Your task to perform on an android device: Add dell xps to the cart on bestbuy.com Image 0: 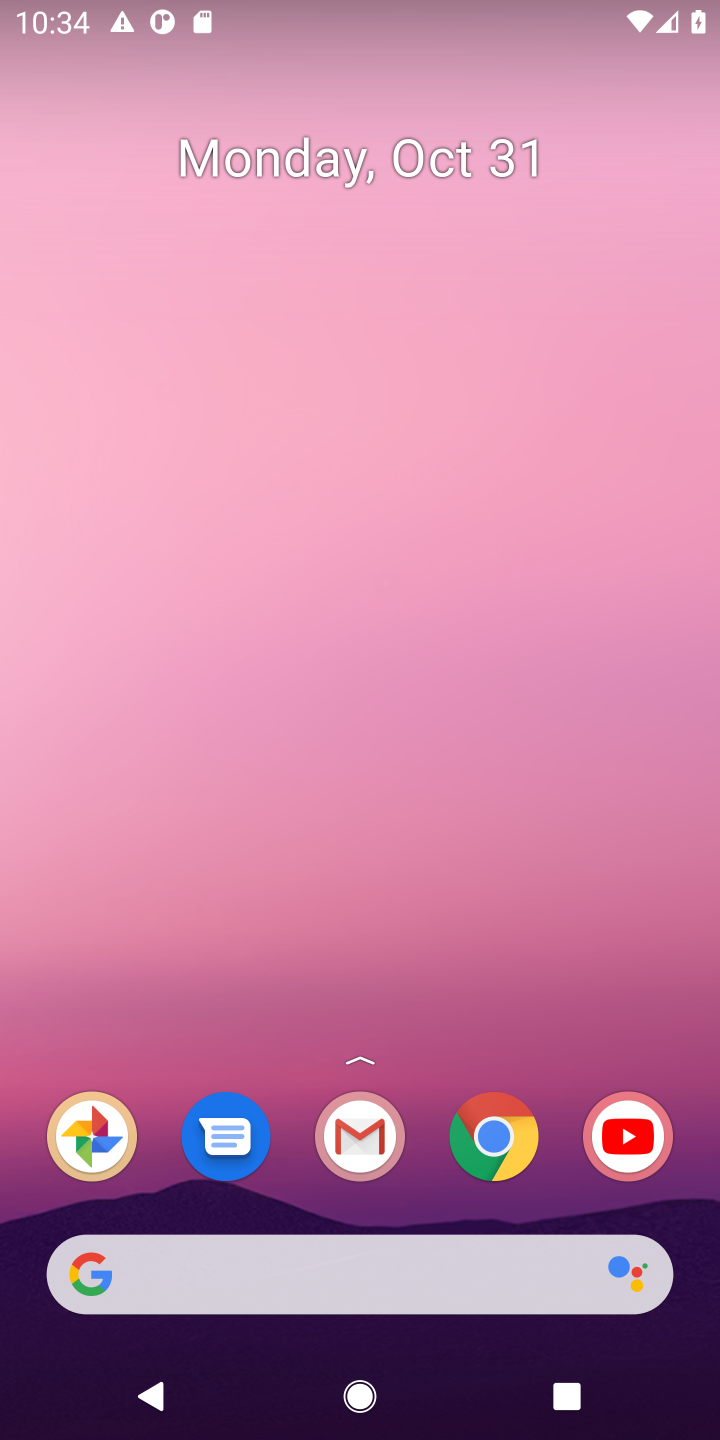
Step 0: press home button
Your task to perform on an android device: Add dell xps to the cart on bestbuy.com Image 1: 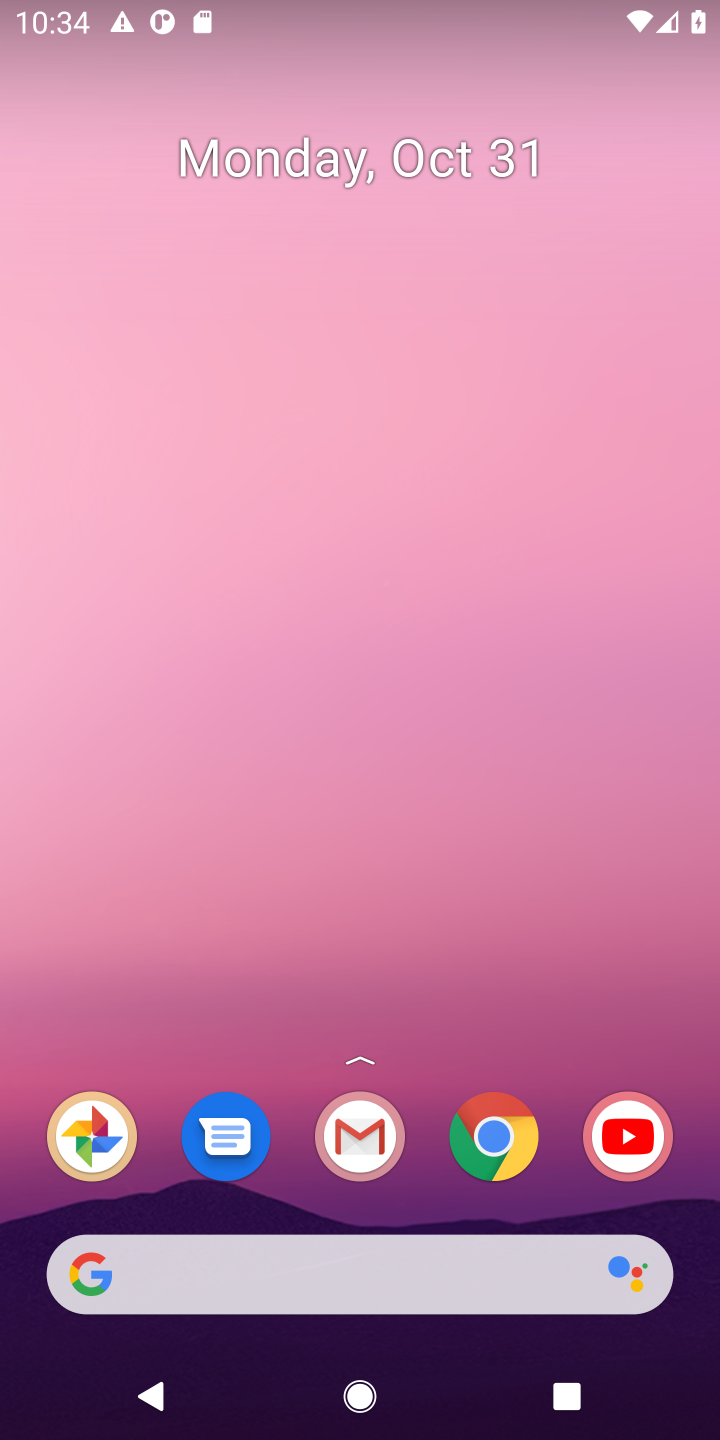
Step 1: click (126, 1282)
Your task to perform on an android device: Add dell xps to the cart on bestbuy.com Image 2: 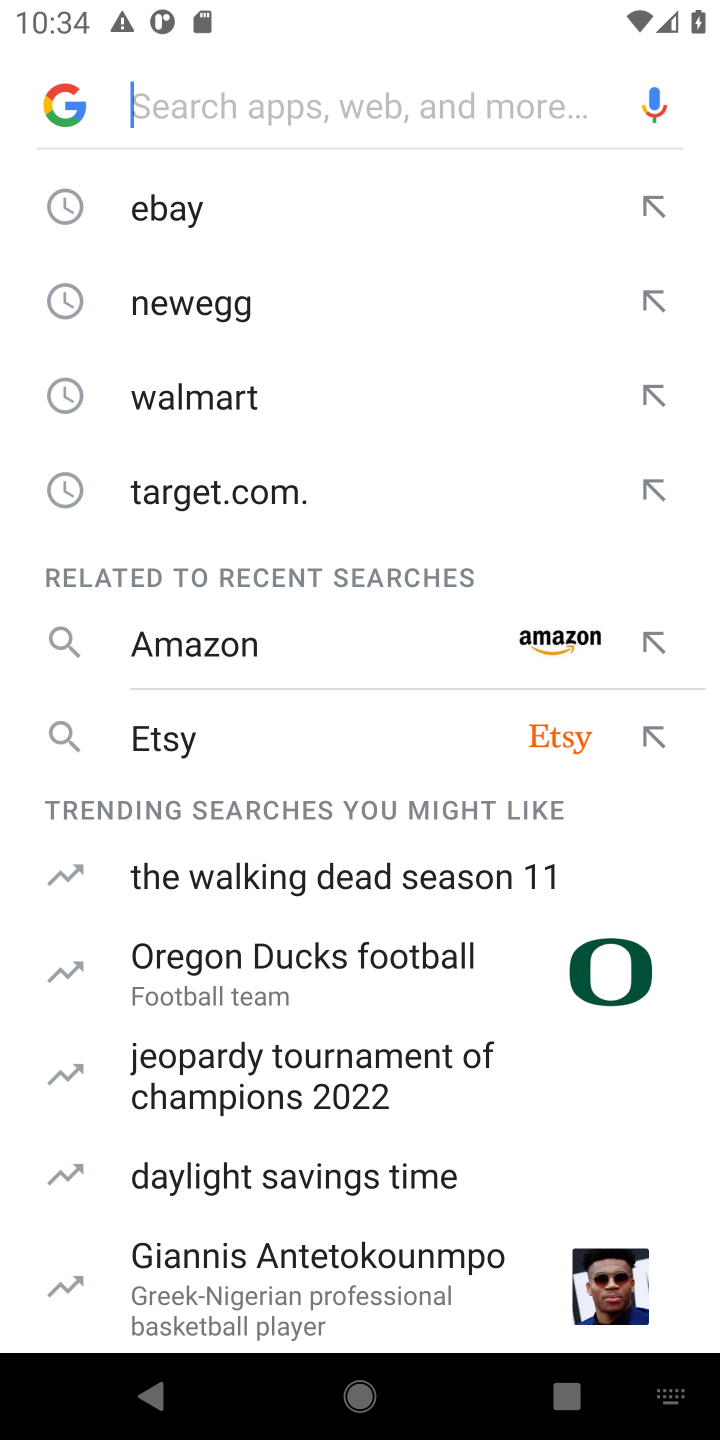
Step 2: type "bestbuy.com"
Your task to perform on an android device: Add dell xps to the cart on bestbuy.com Image 3: 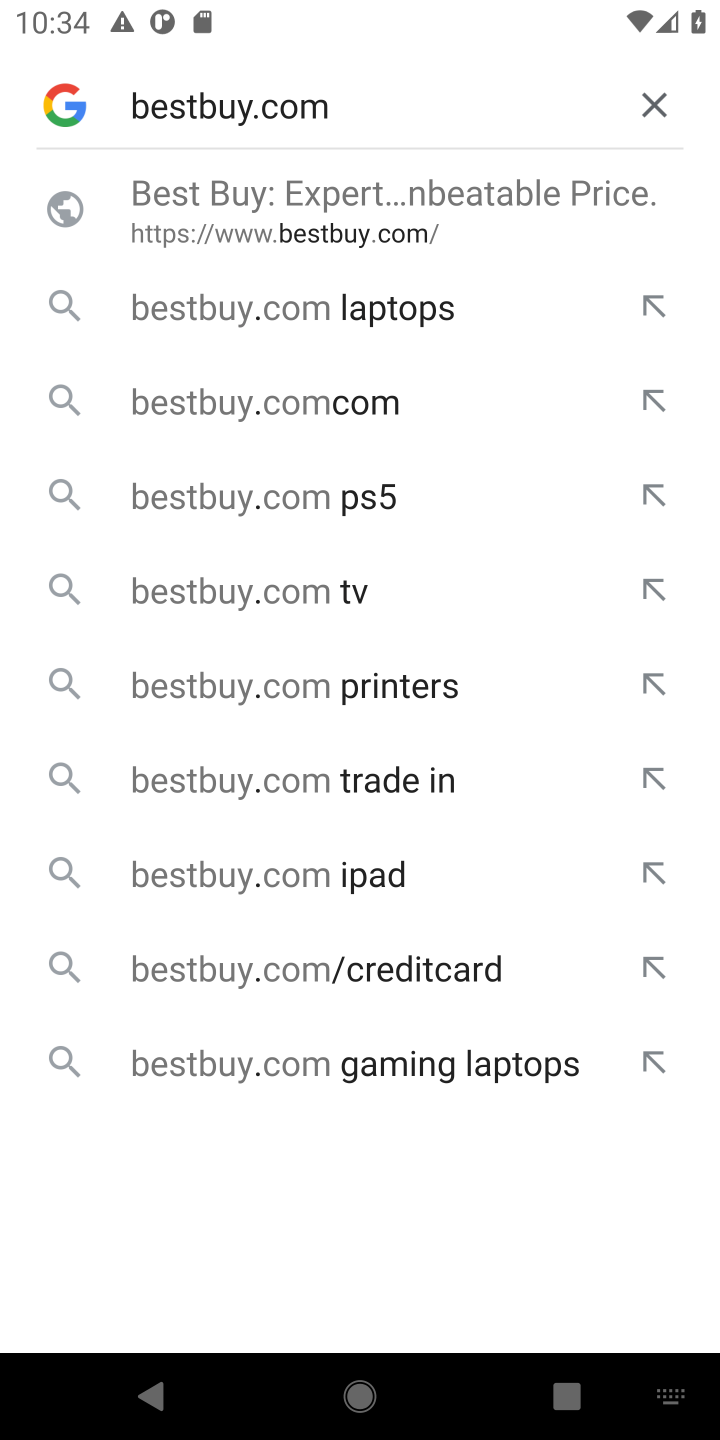
Step 3: press enter
Your task to perform on an android device: Add dell xps to the cart on bestbuy.com Image 4: 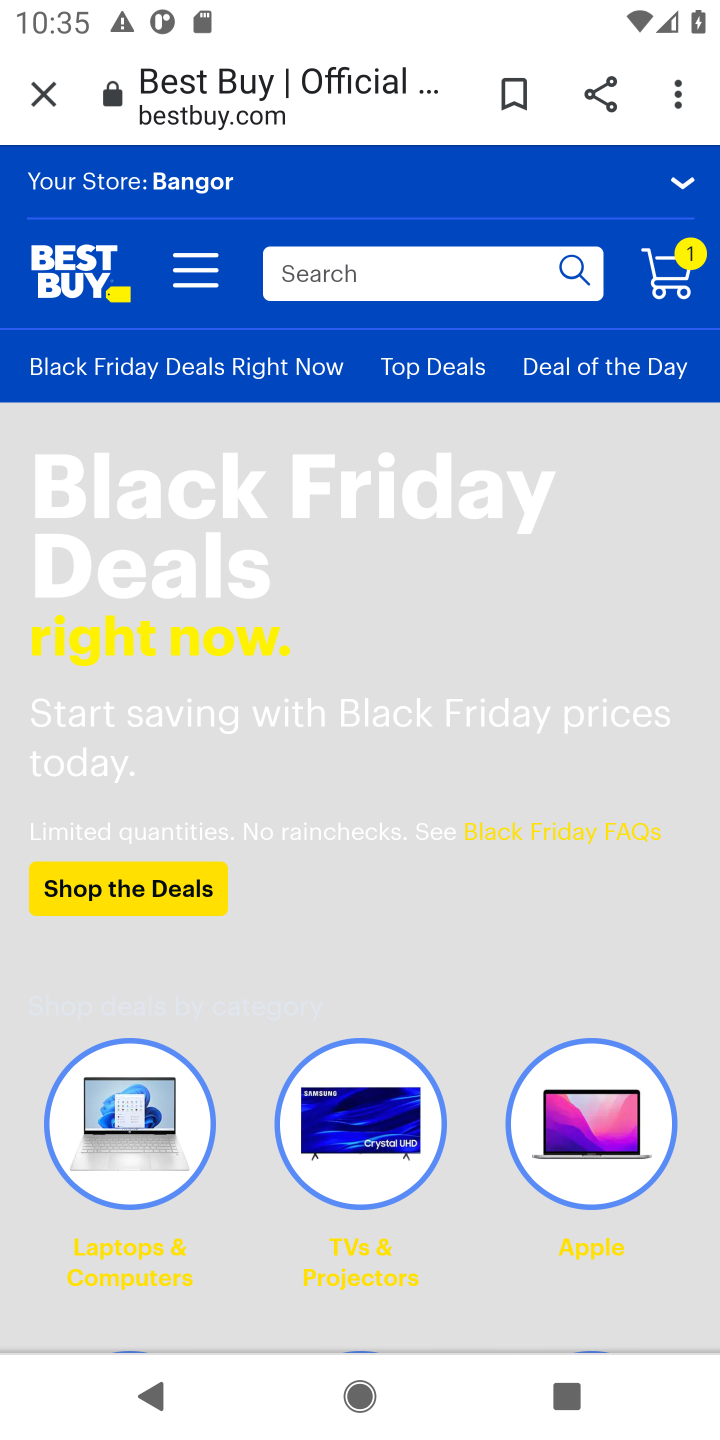
Step 4: click (304, 269)
Your task to perform on an android device: Add dell xps to the cart on bestbuy.com Image 5: 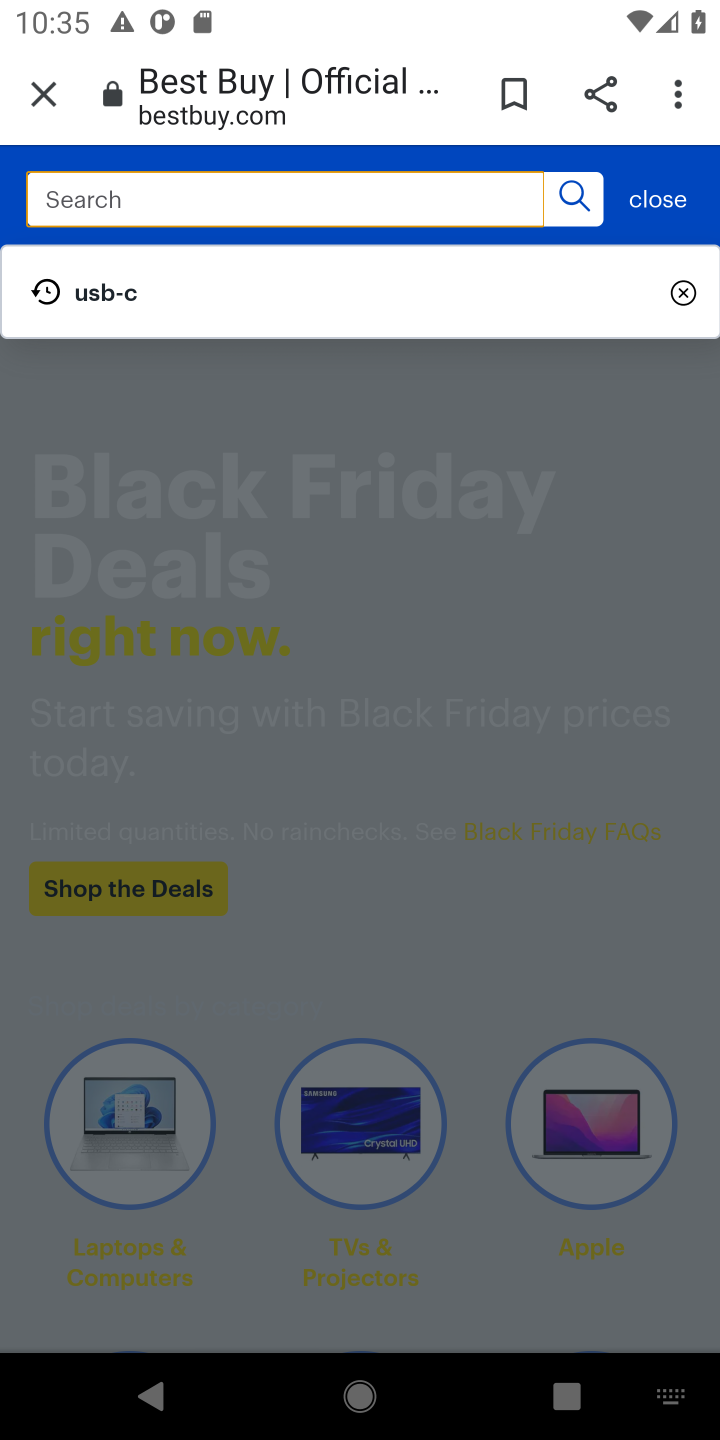
Step 5: type "dell xps"
Your task to perform on an android device: Add dell xps to the cart on bestbuy.com Image 6: 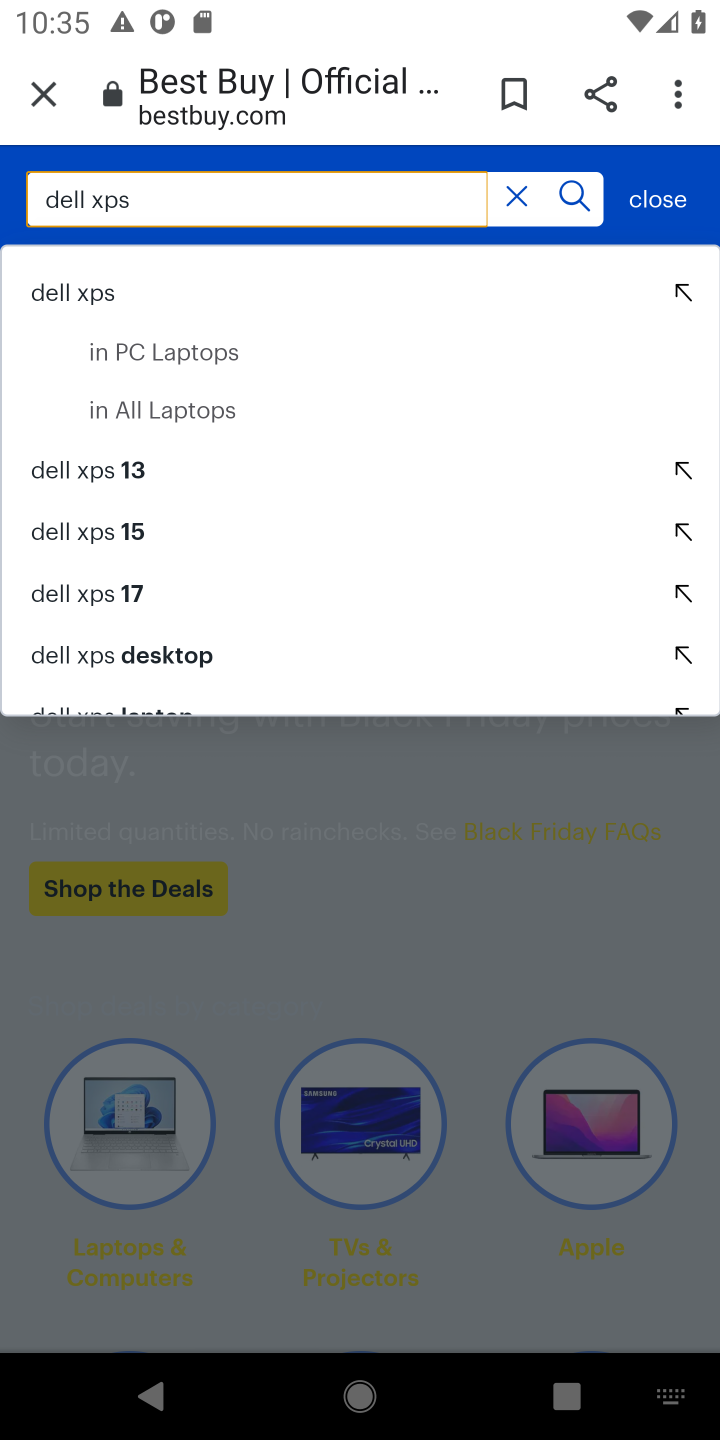
Step 6: press enter
Your task to perform on an android device: Add dell xps to the cart on bestbuy.com Image 7: 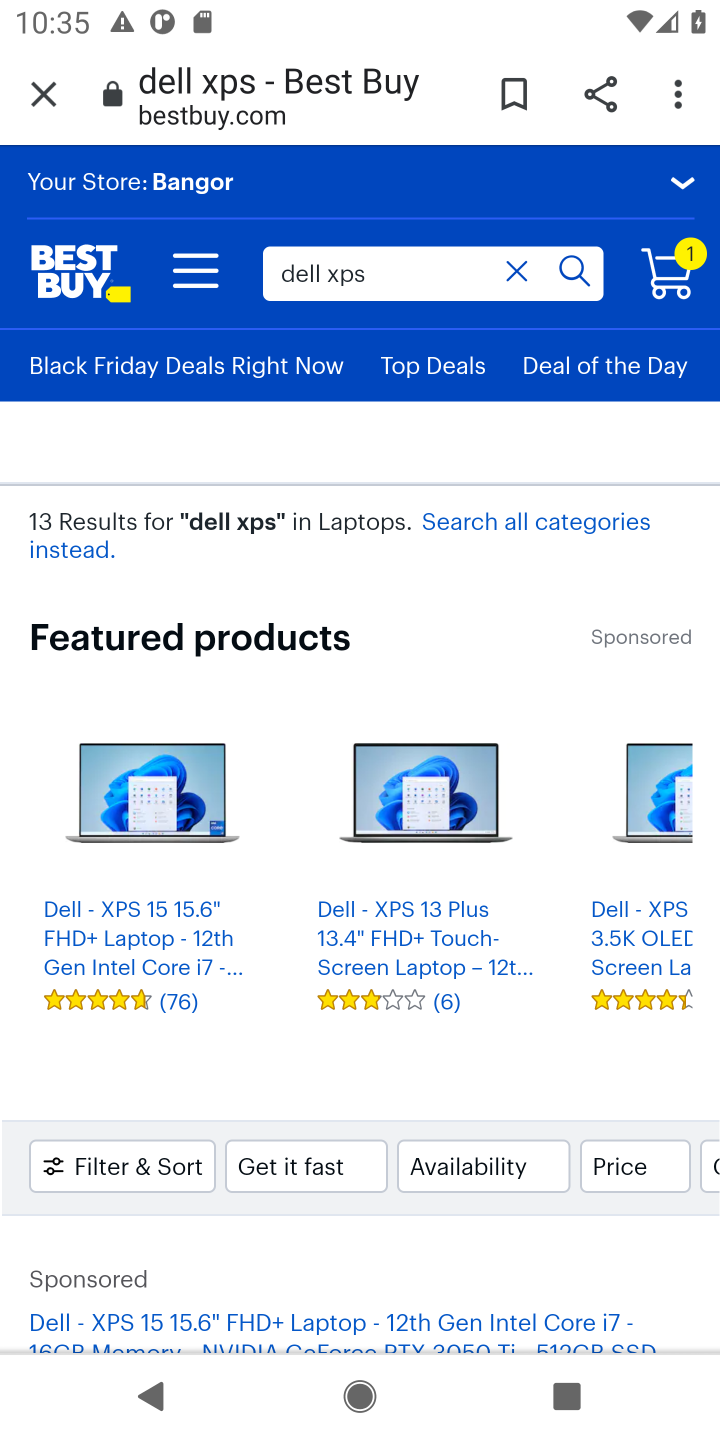
Step 7: drag from (412, 1127) to (509, 479)
Your task to perform on an android device: Add dell xps to the cart on bestbuy.com Image 8: 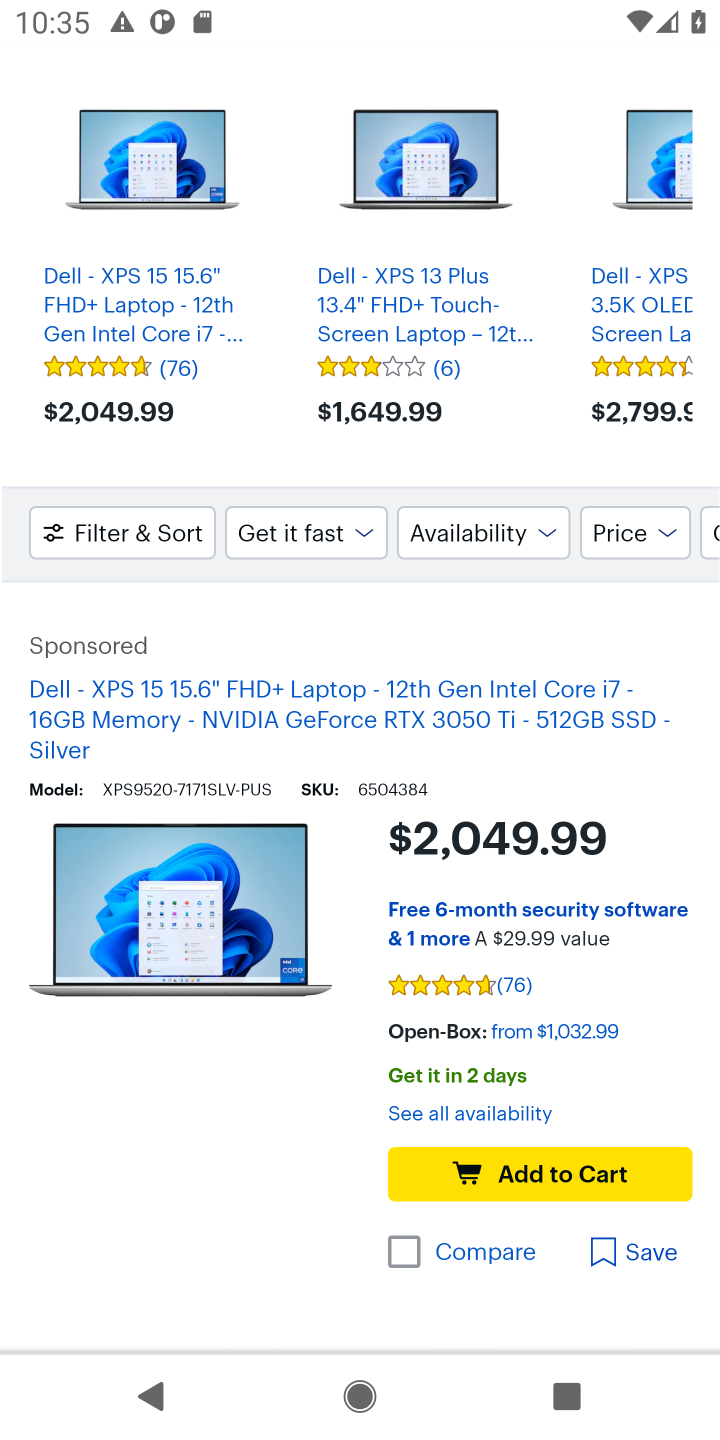
Step 8: drag from (318, 1028) to (369, 607)
Your task to perform on an android device: Add dell xps to the cart on bestbuy.com Image 9: 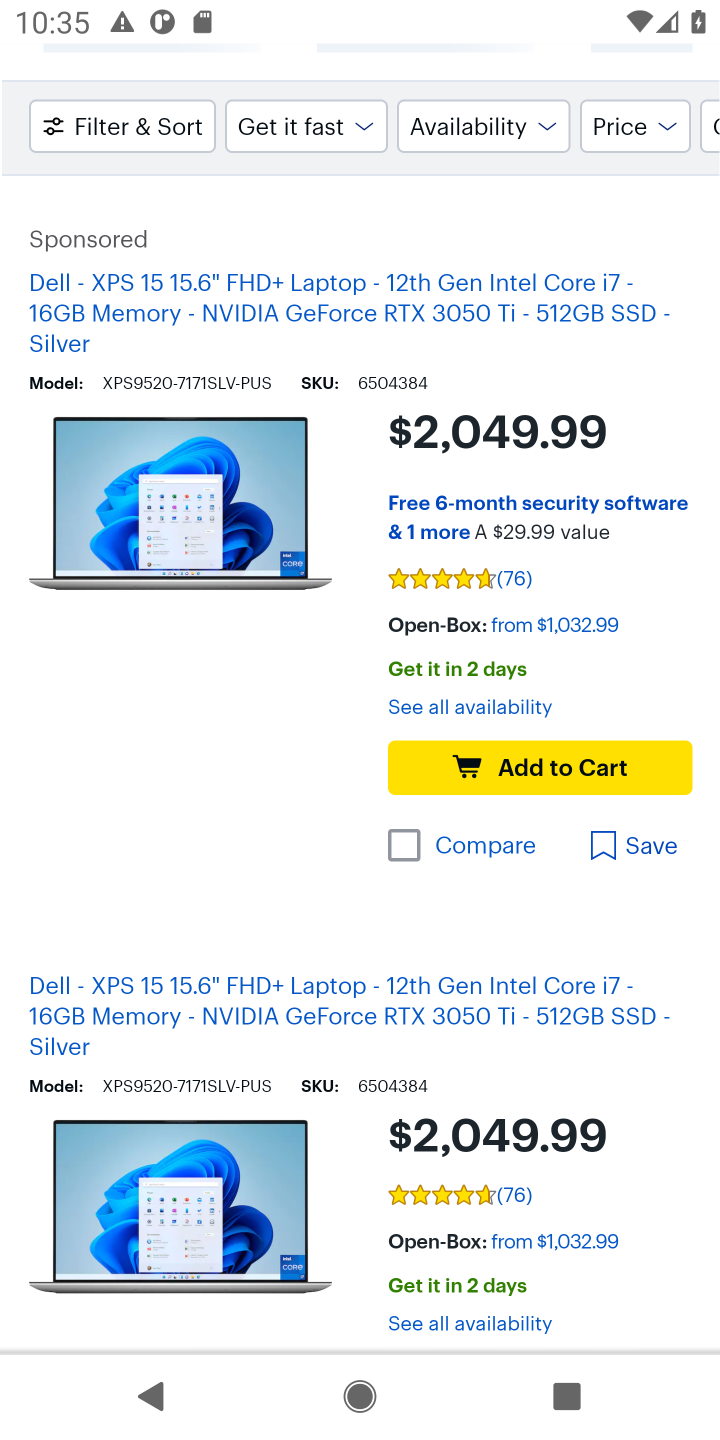
Step 9: click (534, 758)
Your task to perform on an android device: Add dell xps to the cart on bestbuy.com Image 10: 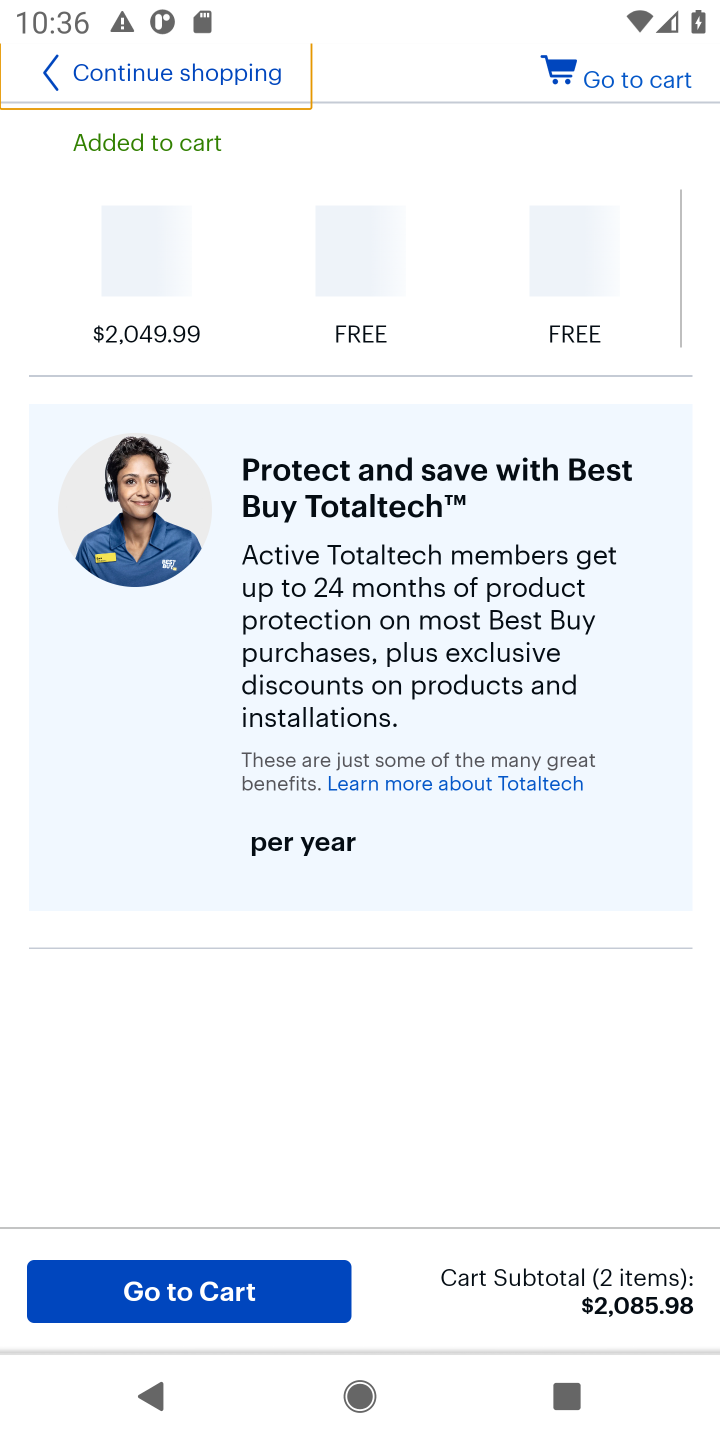
Step 10: task complete